Your task to perform on an android device: open a new tab in the chrome app Image 0: 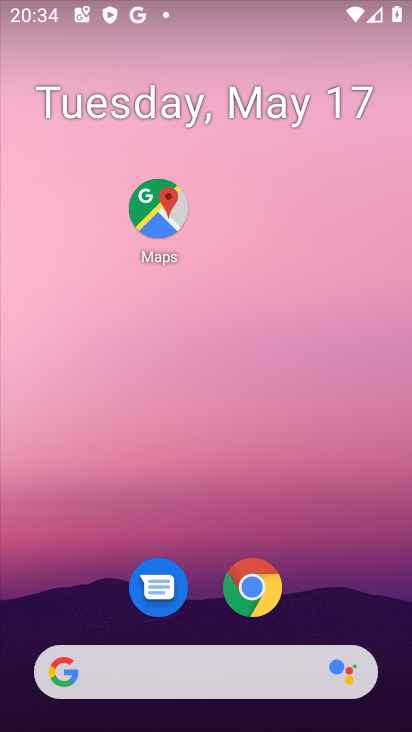
Step 0: click (251, 595)
Your task to perform on an android device: open a new tab in the chrome app Image 1: 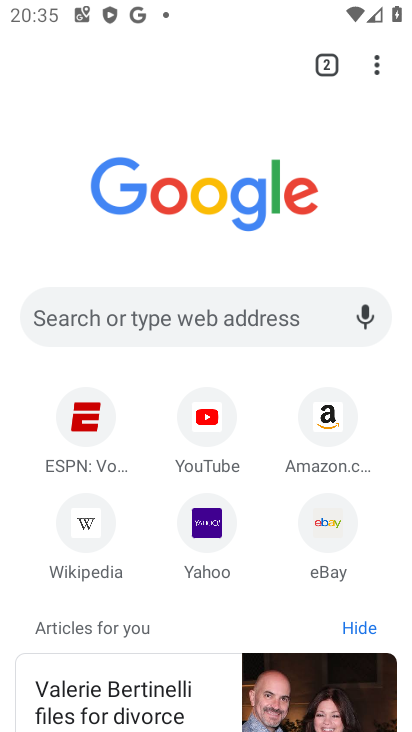
Step 1: click (324, 60)
Your task to perform on an android device: open a new tab in the chrome app Image 2: 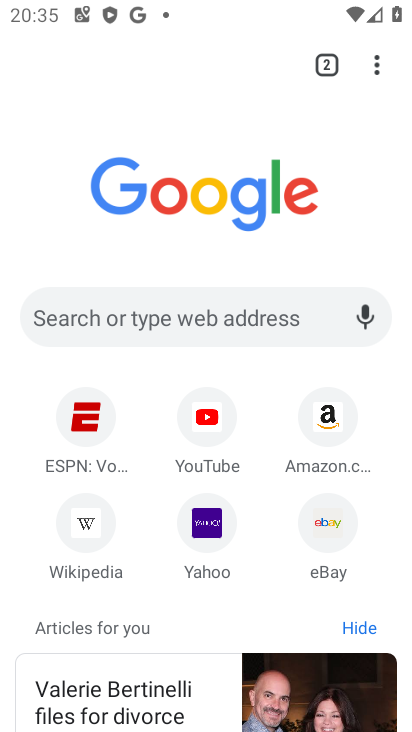
Step 2: click (325, 61)
Your task to perform on an android device: open a new tab in the chrome app Image 3: 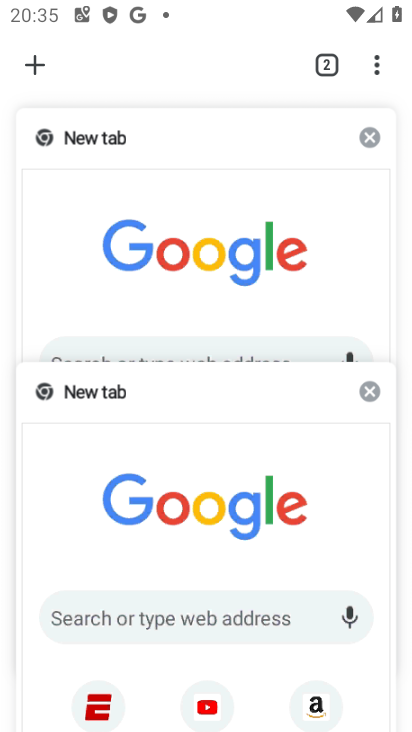
Step 3: click (37, 58)
Your task to perform on an android device: open a new tab in the chrome app Image 4: 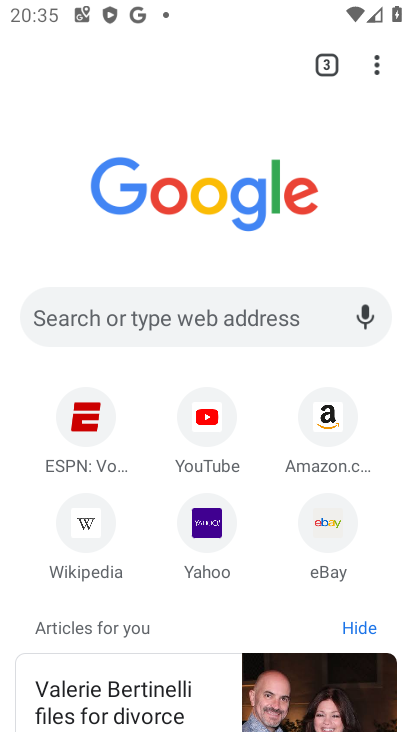
Step 4: click (327, 60)
Your task to perform on an android device: open a new tab in the chrome app Image 5: 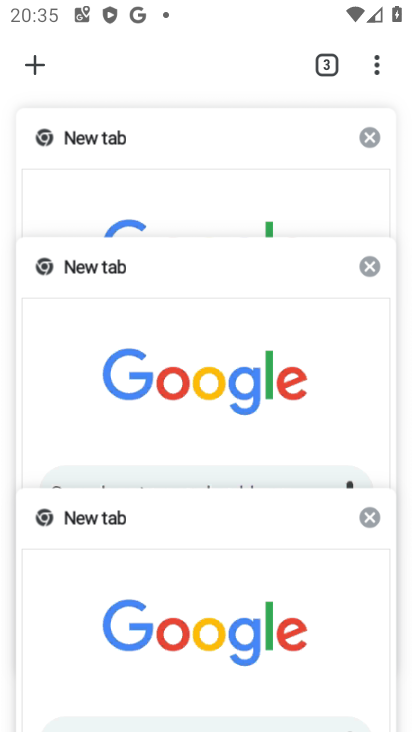
Step 5: click (367, 263)
Your task to perform on an android device: open a new tab in the chrome app Image 6: 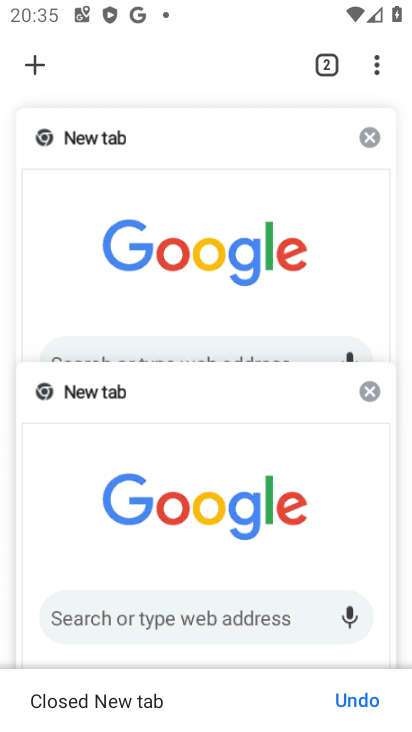
Step 6: click (370, 395)
Your task to perform on an android device: open a new tab in the chrome app Image 7: 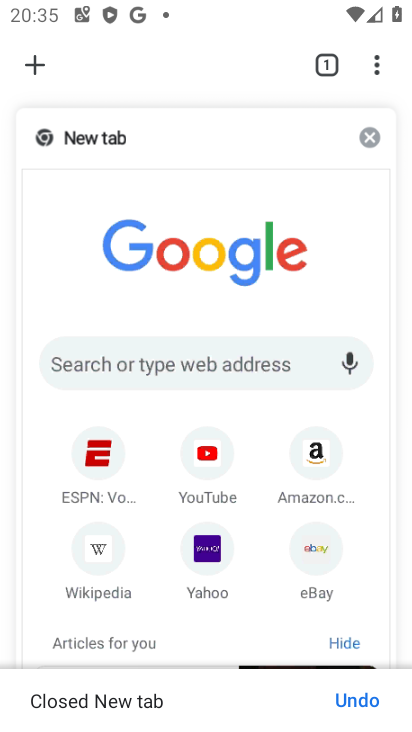
Step 7: click (297, 255)
Your task to perform on an android device: open a new tab in the chrome app Image 8: 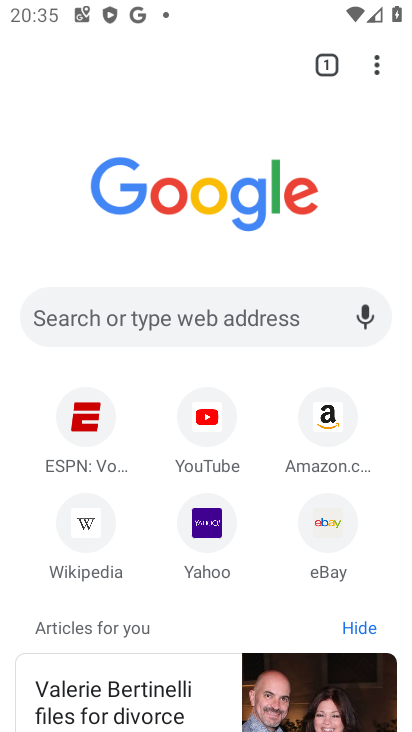
Step 8: task complete